Your task to perform on an android device: Turn off the flashlight Image 0: 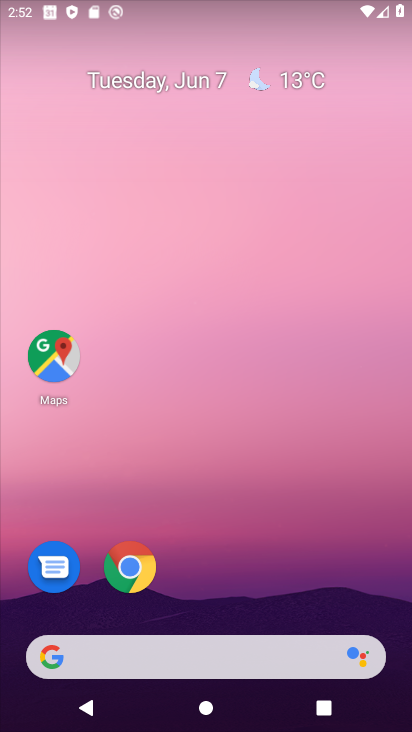
Step 0: drag from (246, 562) to (255, 96)
Your task to perform on an android device: Turn off the flashlight Image 1: 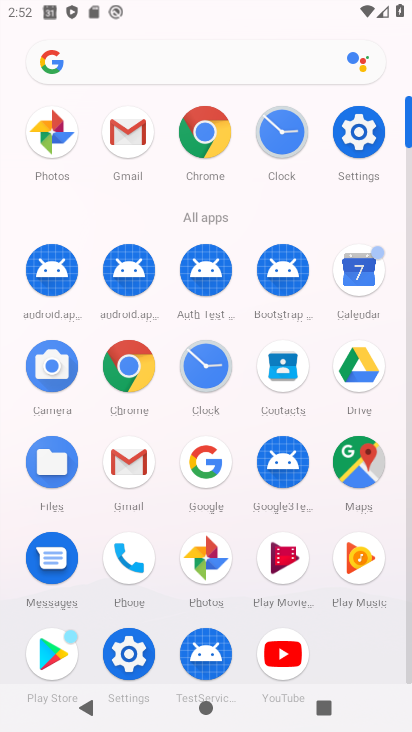
Step 1: click (372, 126)
Your task to perform on an android device: Turn off the flashlight Image 2: 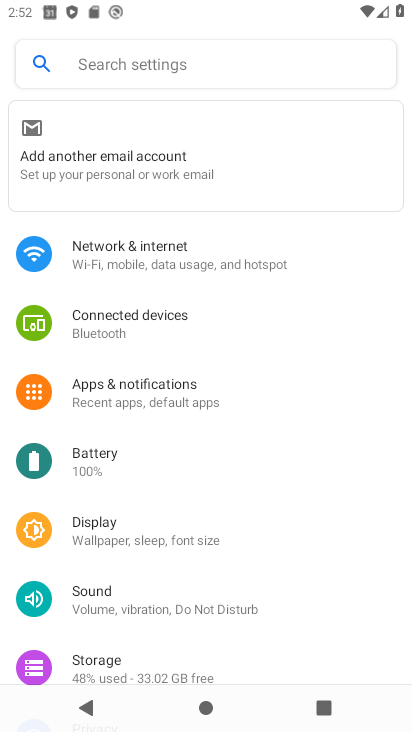
Step 2: click (122, 61)
Your task to perform on an android device: Turn off the flashlight Image 3: 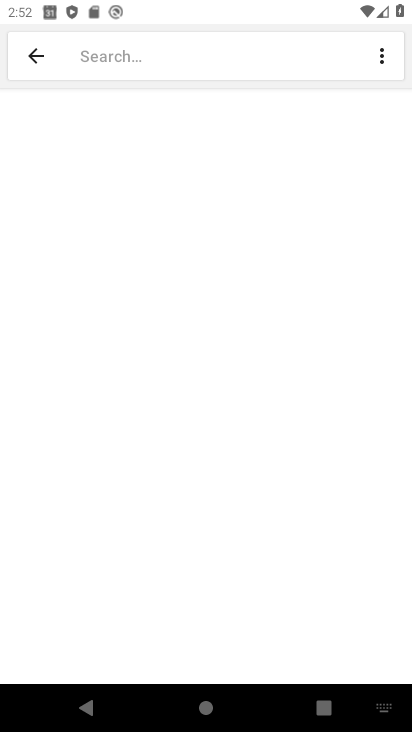
Step 3: type "flashlight"
Your task to perform on an android device: Turn off the flashlight Image 4: 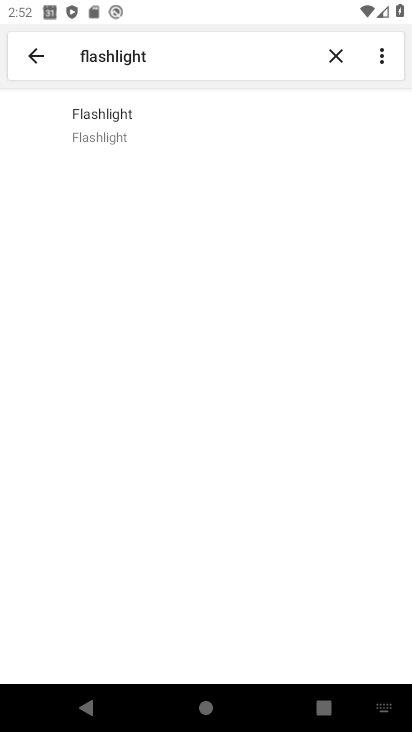
Step 4: click (114, 141)
Your task to perform on an android device: Turn off the flashlight Image 5: 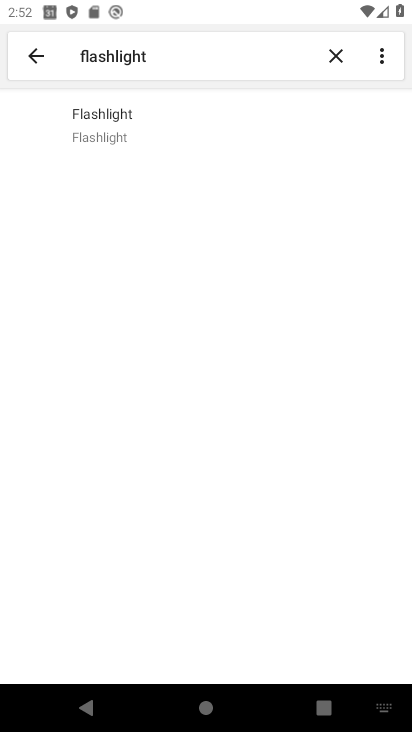
Step 5: task complete